Your task to perform on an android device: Clear the cart on ebay. Add "bose soundlink mini" to the cart on ebay, then select checkout. Image 0: 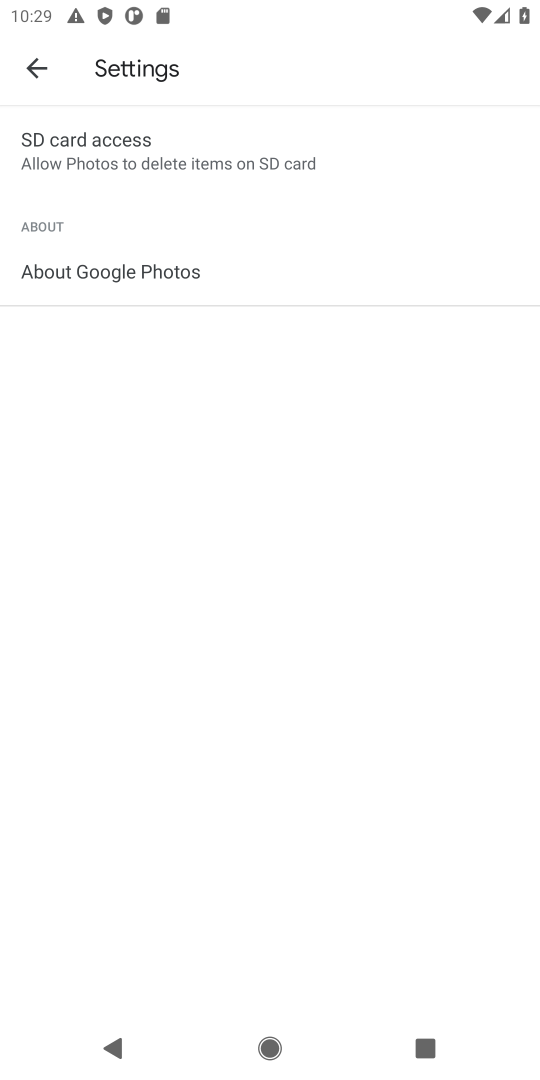
Step 0: press home button
Your task to perform on an android device: Clear the cart on ebay. Add "bose soundlink mini" to the cart on ebay, then select checkout. Image 1: 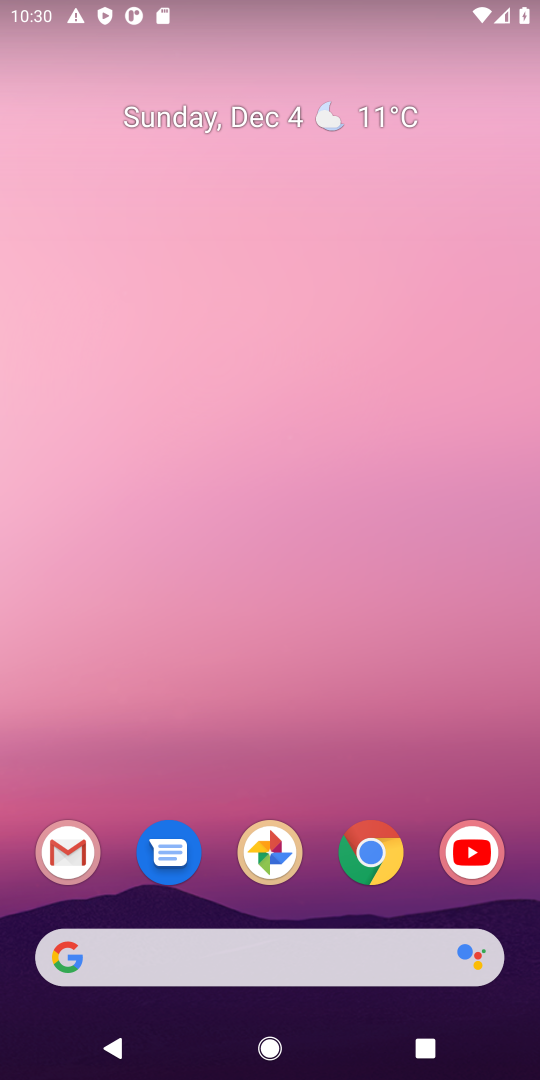
Step 1: drag from (277, 582) to (259, 440)
Your task to perform on an android device: Clear the cart on ebay. Add "bose soundlink mini" to the cart on ebay, then select checkout. Image 2: 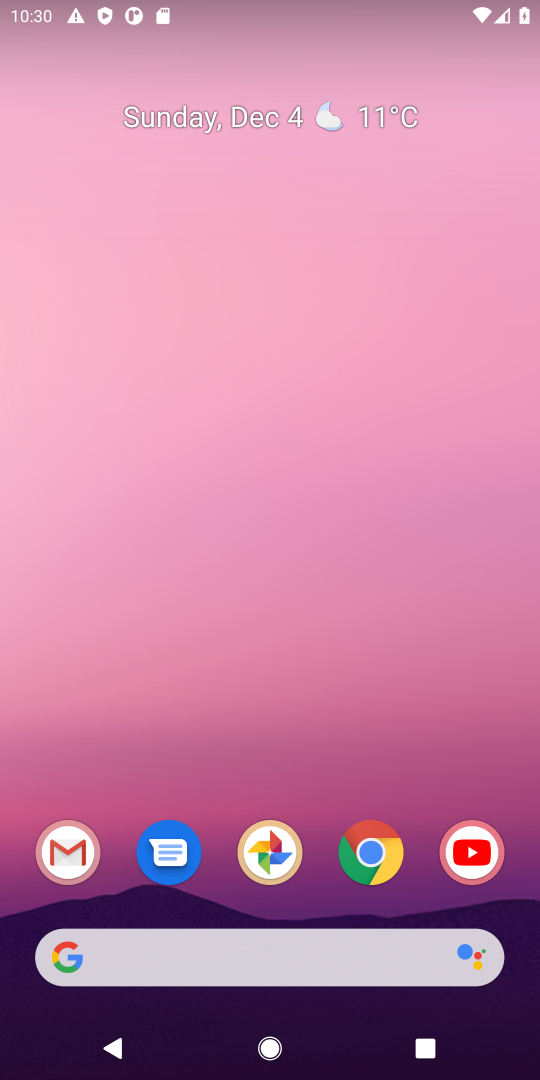
Step 2: drag from (262, 891) to (317, 285)
Your task to perform on an android device: Clear the cart on ebay. Add "bose soundlink mini" to the cart on ebay, then select checkout. Image 3: 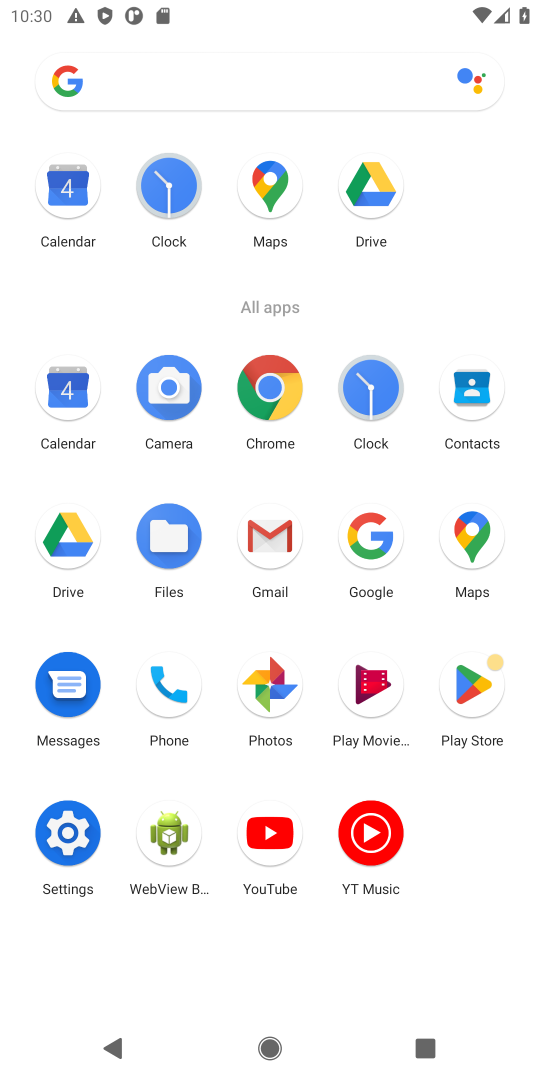
Step 3: click (369, 526)
Your task to perform on an android device: Clear the cart on ebay. Add "bose soundlink mini" to the cart on ebay, then select checkout. Image 4: 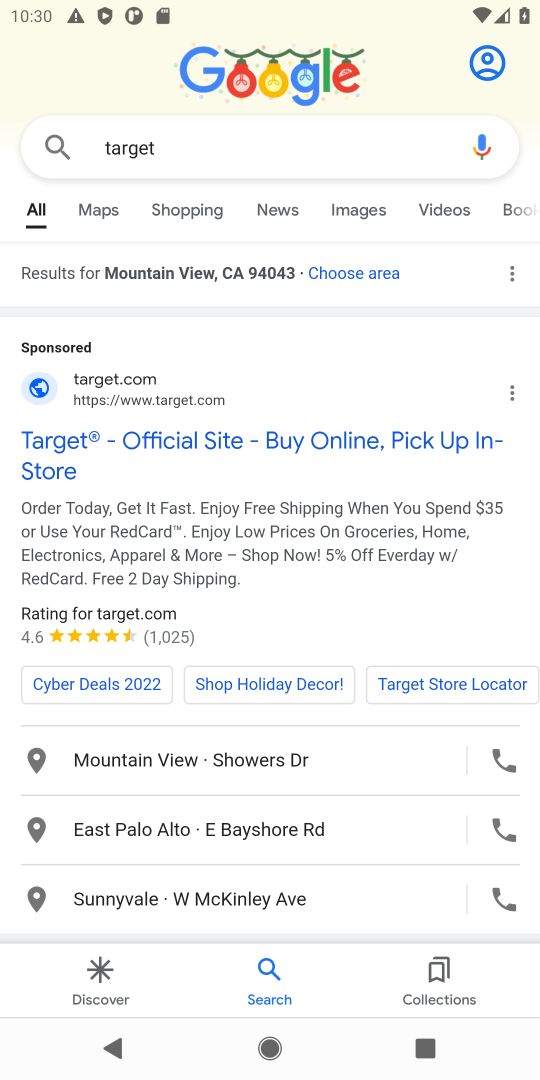
Step 4: click (250, 146)
Your task to perform on an android device: Clear the cart on ebay. Add "bose soundlink mini" to the cart on ebay, then select checkout. Image 5: 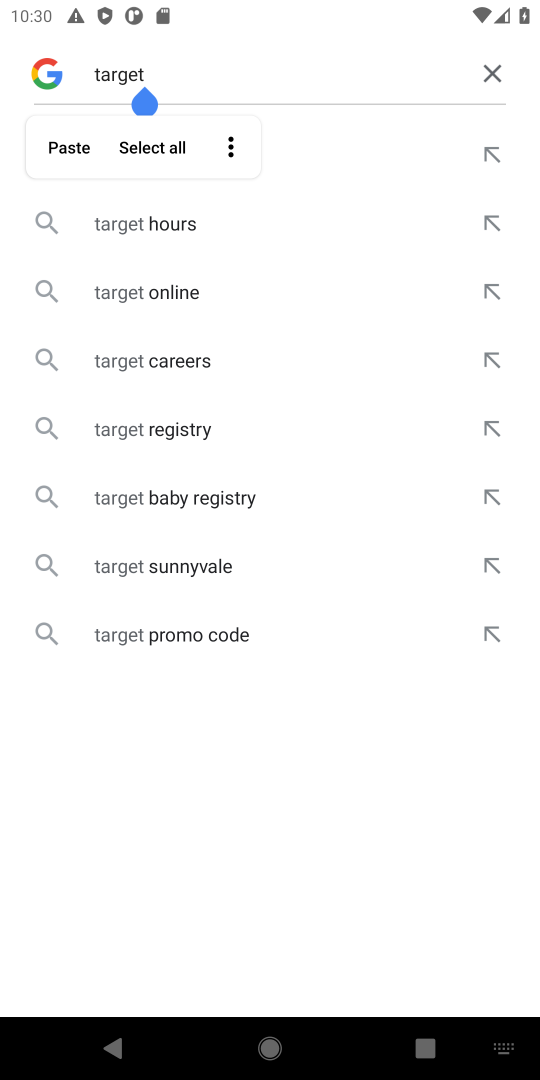
Step 5: click (493, 73)
Your task to perform on an android device: Clear the cart on ebay. Add "bose soundlink mini" to the cart on ebay, then select checkout. Image 6: 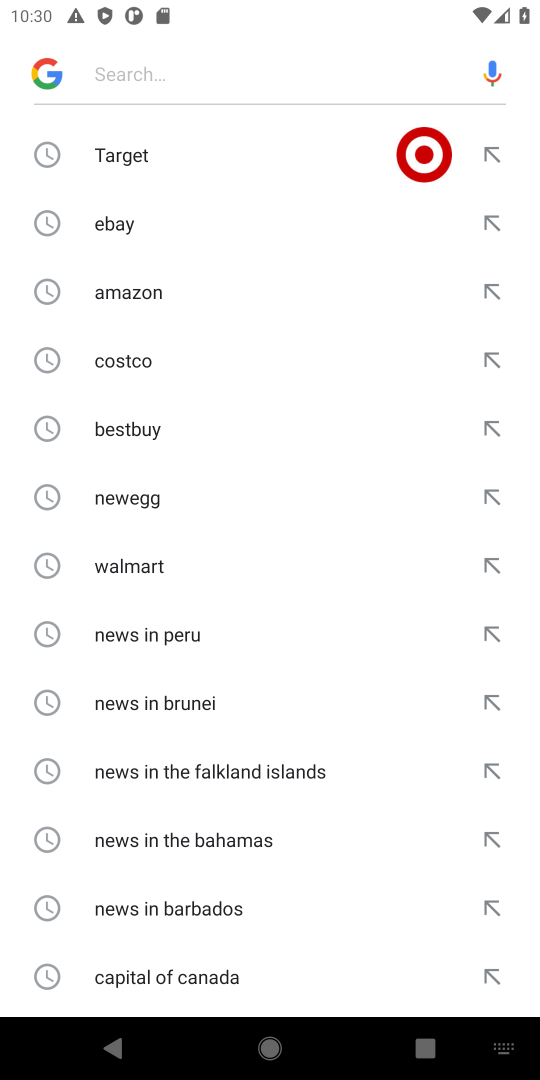
Step 6: click (151, 231)
Your task to perform on an android device: Clear the cart on ebay. Add "bose soundlink mini" to the cart on ebay, then select checkout. Image 7: 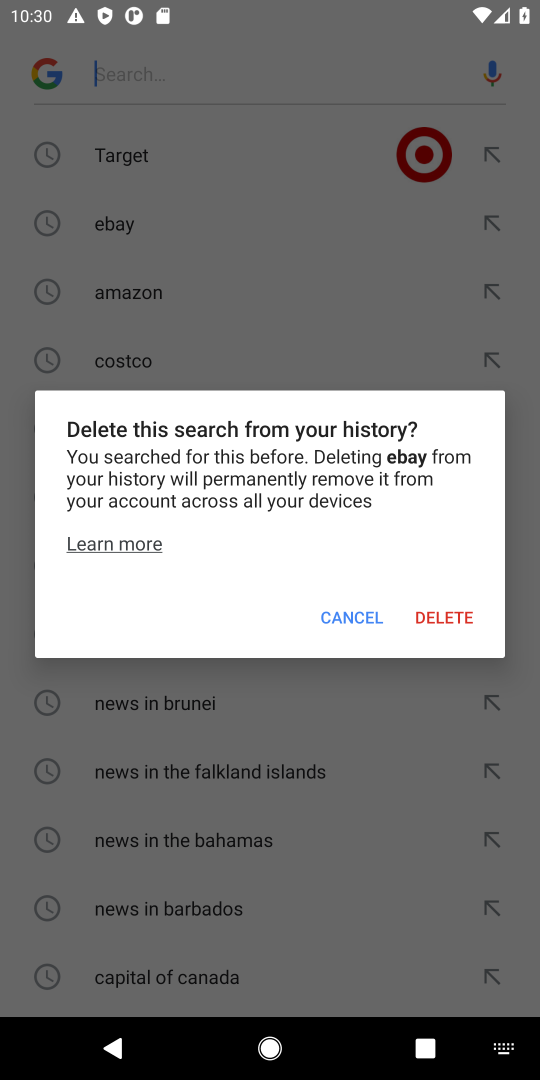
Step 7: click (355, 605)
Your task to perform on an android device: Clear the cart on ebay. Add "bose soundlink mini" to the cart on ebay, then select checkout. Image 8: 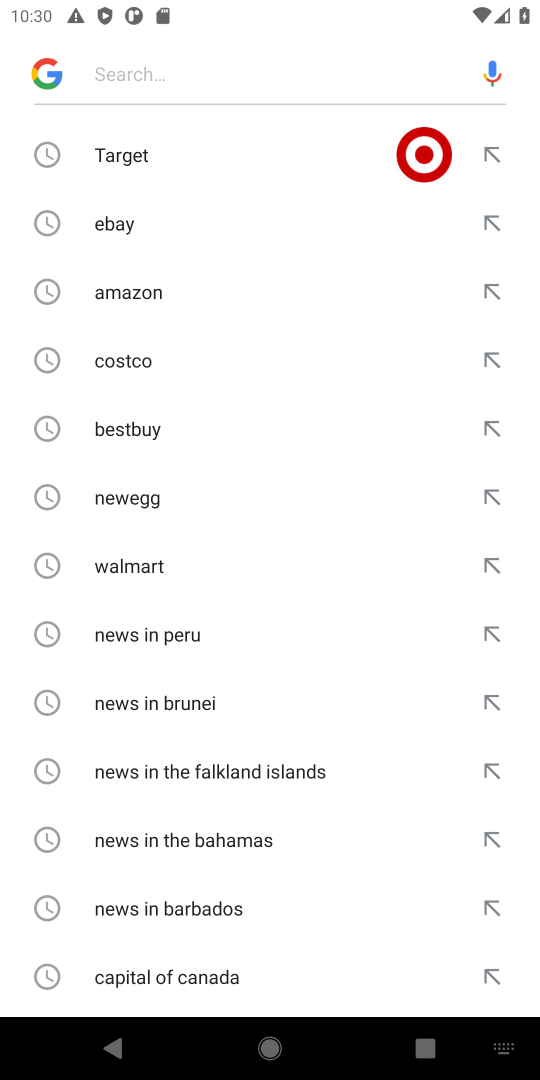
Step 8: click (490, 224)
Your task to perform on an android device: Clear the cart on ebay. Add "bose soundlink mini" to the cart on ebay, then select checkout. Image 9: 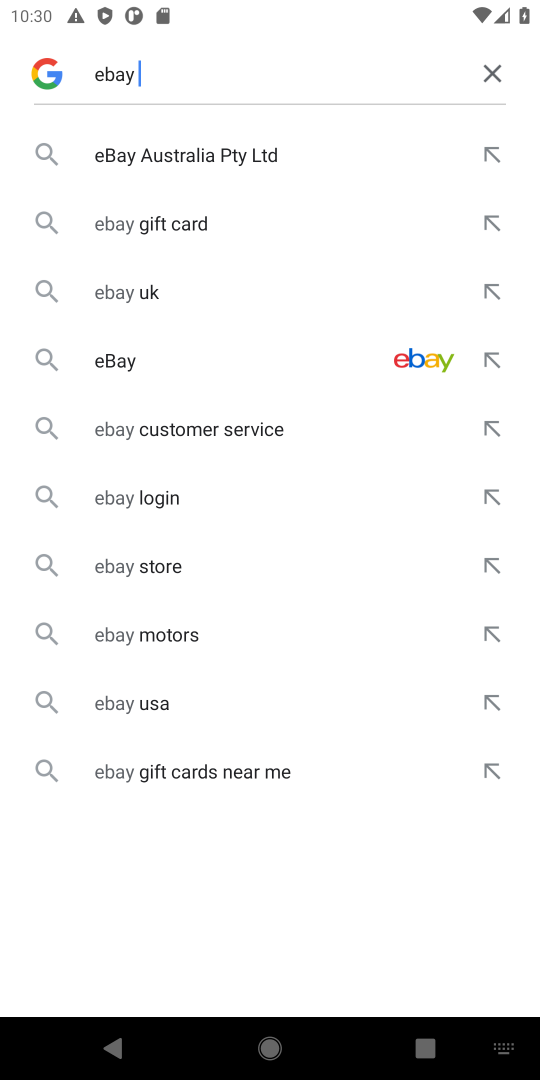
Step 9: click (435, 349)
Your task to perform on an android device: Clear the cart on ebay. Add "bose soundlink mini" to the cart on ebay, then select checkout. Image 10: 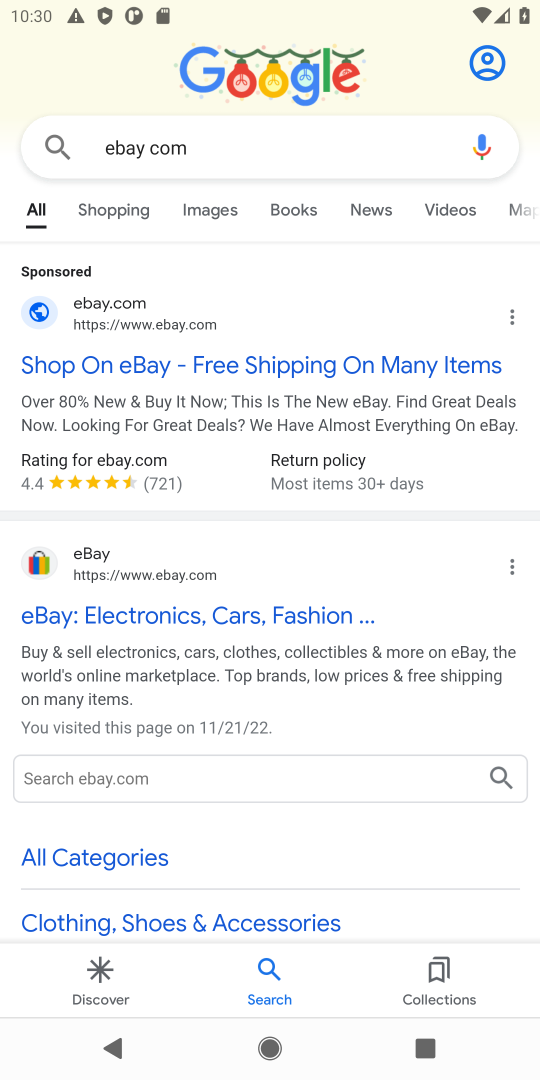
Step 10: click (115, 615)
Your task to perform on an android device: Clear the cart on ebay. Add "bose soundlink mini" to the cart on ebay, then select checkout. Image 11: 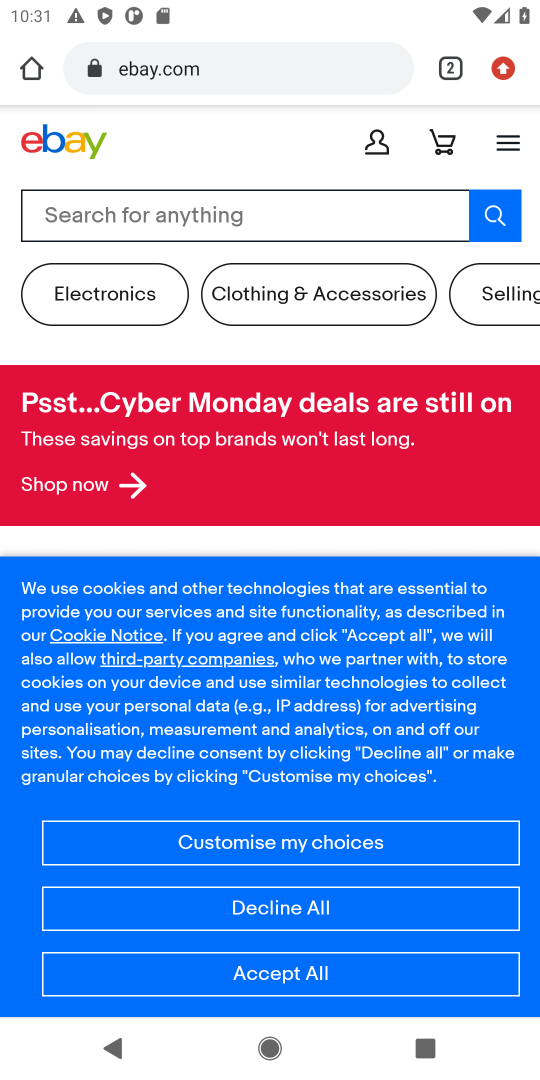
Step 11: click (93, 211)
Your task to perform on an android device: Clear the cart on ebay. Add "bose soundlink mini" to the cart on ebay, then select checkout. Image 12: 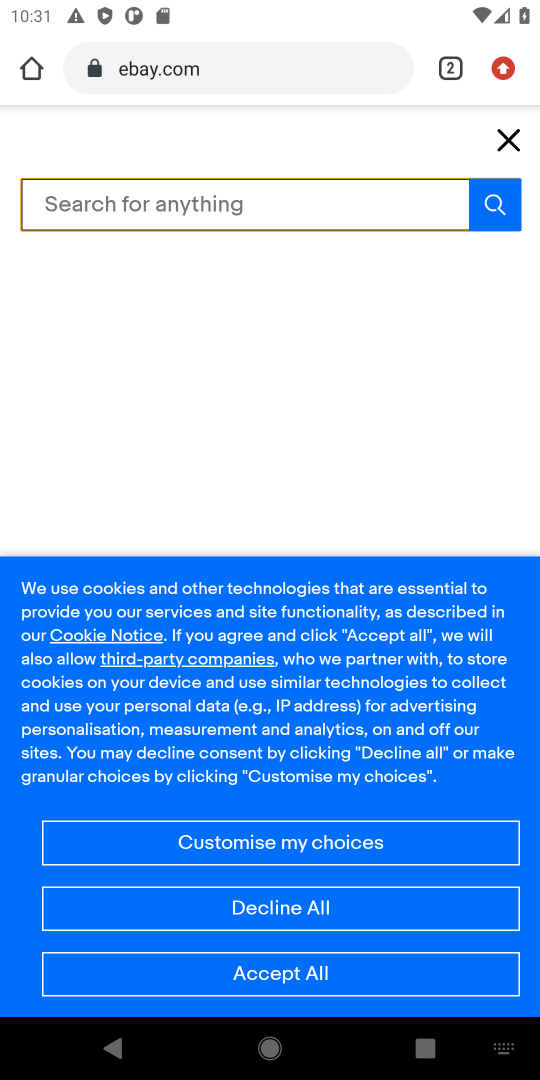
Step 12: type "bose soundlink mini"
Your task to perform on an android device: Clear the cart on ebay. Add "bose soundlink mini" to the cart on ebay, then select checkout. Image 13: 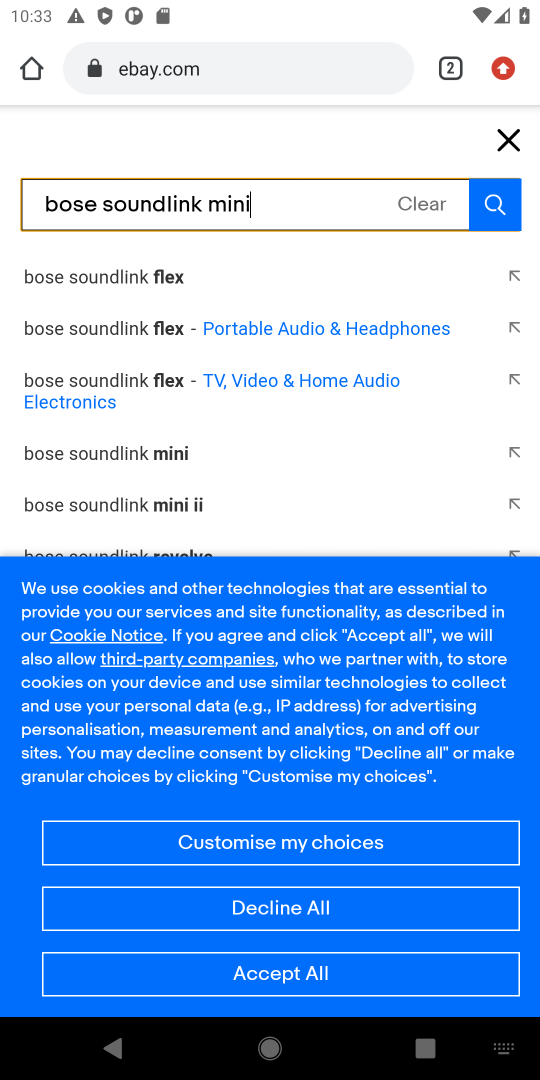
Step 13: click (490, 200)
Your task to perform on an android device: Clear the cart on ebay. Add "bose soundlink mini" to the cart on ebay, then select checkout. Image 14: 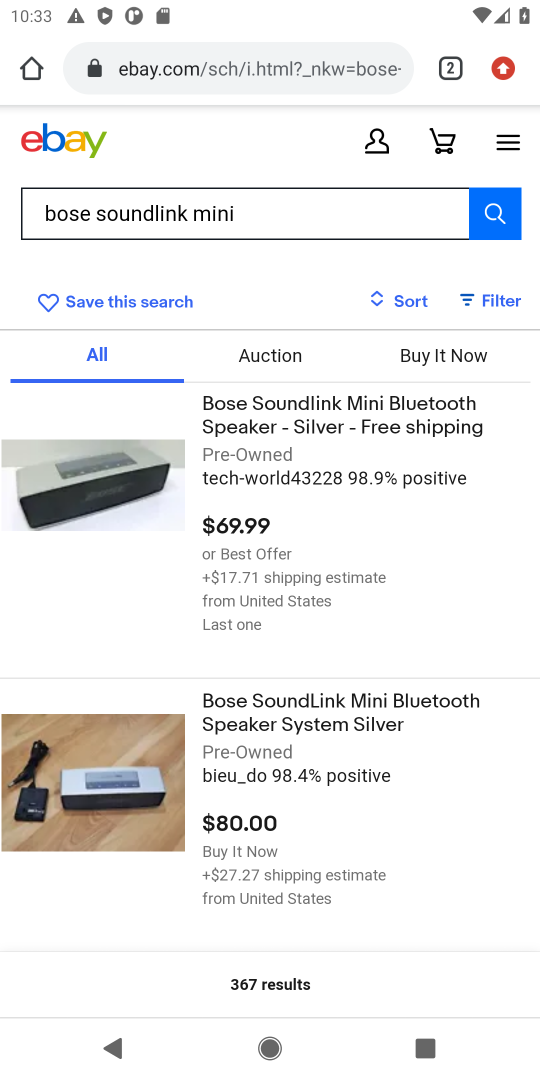
Step 14: click (296, 474)
Your task to perform on an android device: Clear the cart on ebay. Add "bose soundlink mini" to the cart on ebay, then select checkout. Image 15: 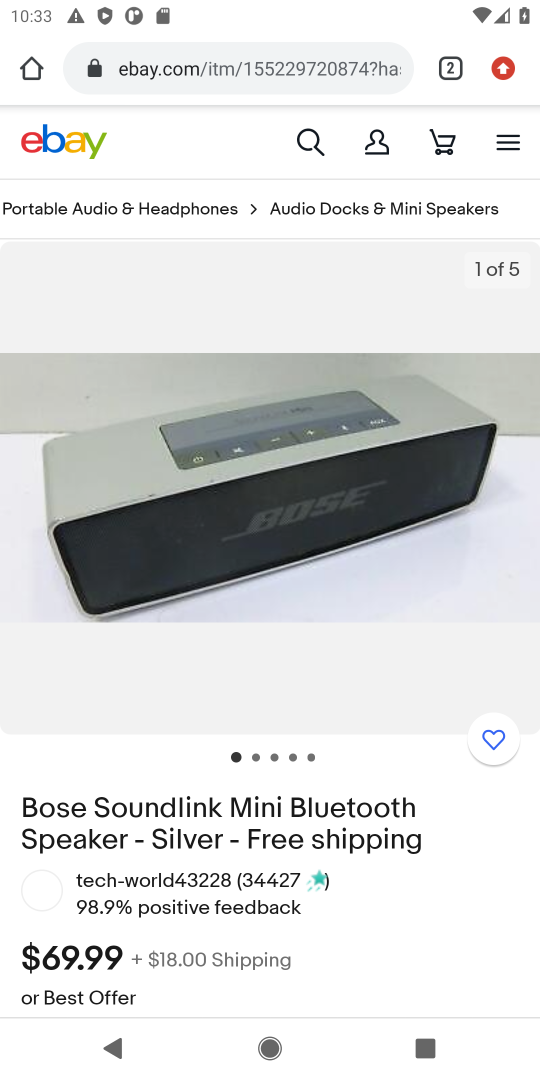
Step 15: drag from (393, 861) to (408, 456)
Your task to perform on an android device: Clear the cart on ebay. Add "bose soundlink mini" to the cart on ebay, then select checkout. Image 16: 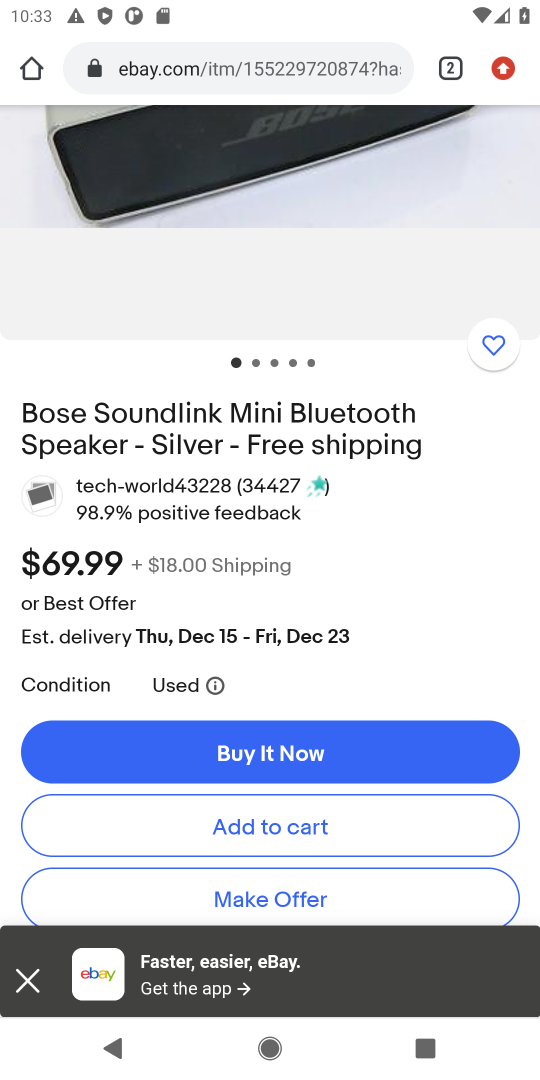
Step 16: click (264, 830)
Your task to perform on an android device: Clear the cart on ebay. Add "bose soundlink mini" to the cart on ebay, then select checkout. Image 17: 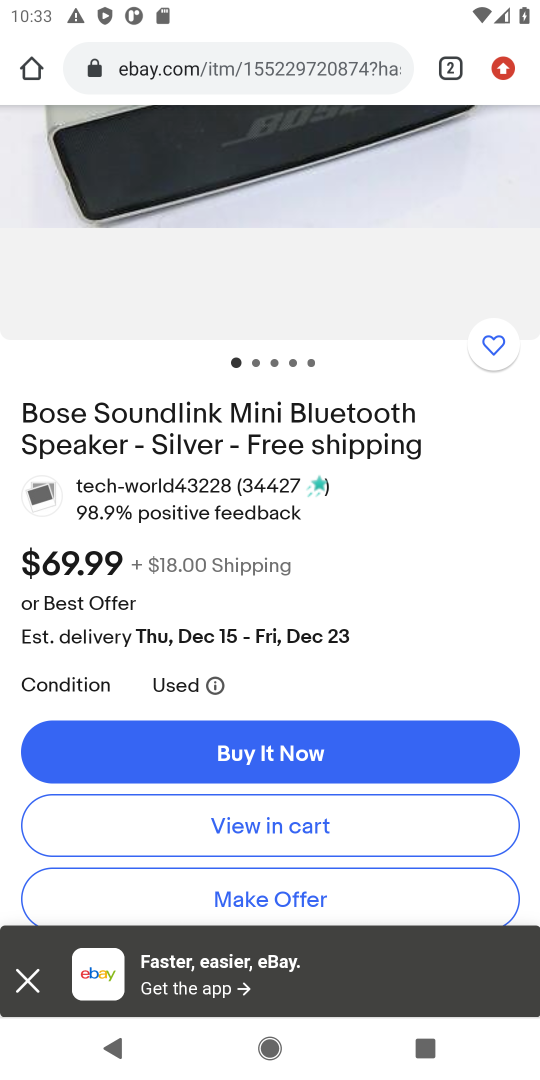
Step 17: click (304, 818)
Your task to perform on an android device: Clear the cart on ebay. Add "bose soundlink mini" to the cart on ebay, then select checkout. Image 18: 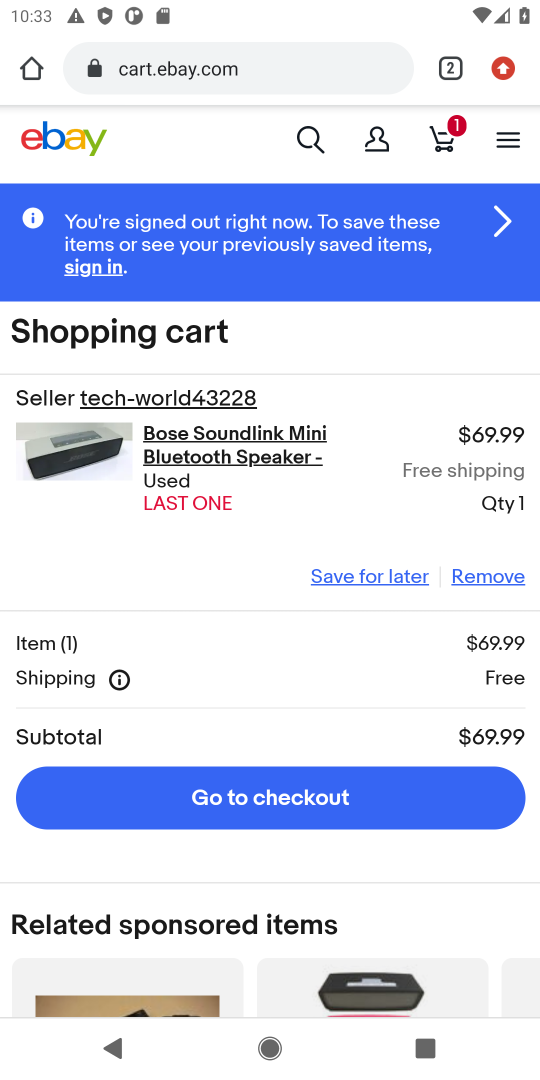
Step 18: click (296, 805)
Your task to perform on an android device: Clear the cart on ebay. Add "bose soundlink mini" to the cart on ebay, then select checkout. Image 19: 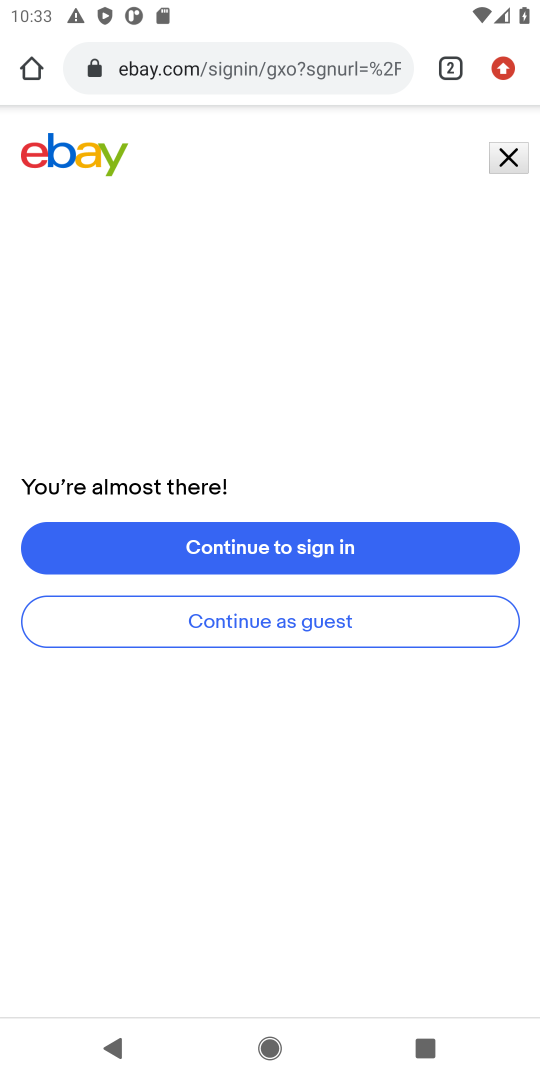
Step 19: task complete